Your task to perform on an android device: Open Yahoo.com Image 0: 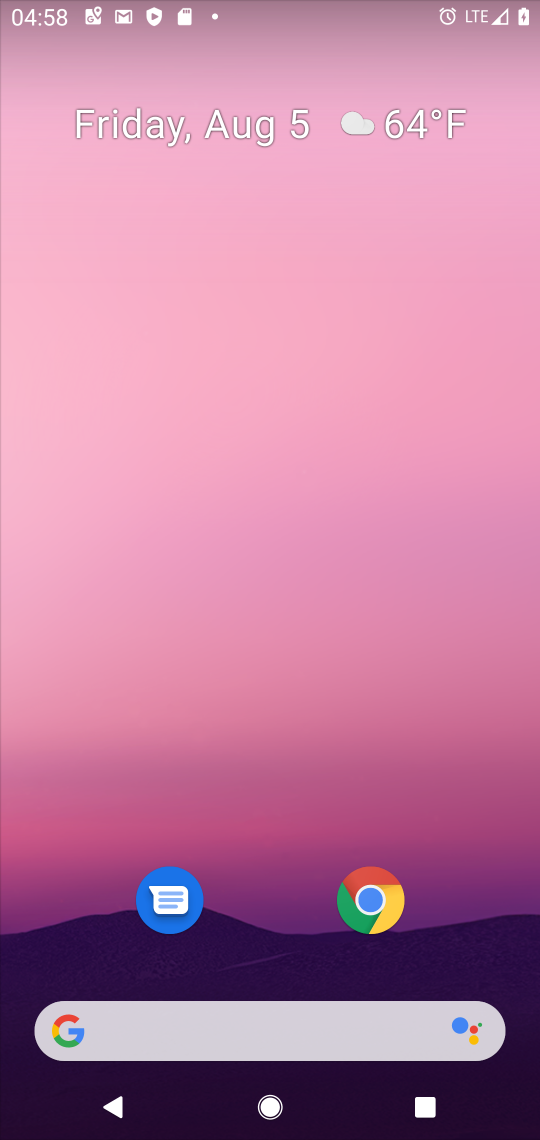
Step 0: click (332, 909)
Your task to perform on an android device: Open Yahoo.com Image 1: 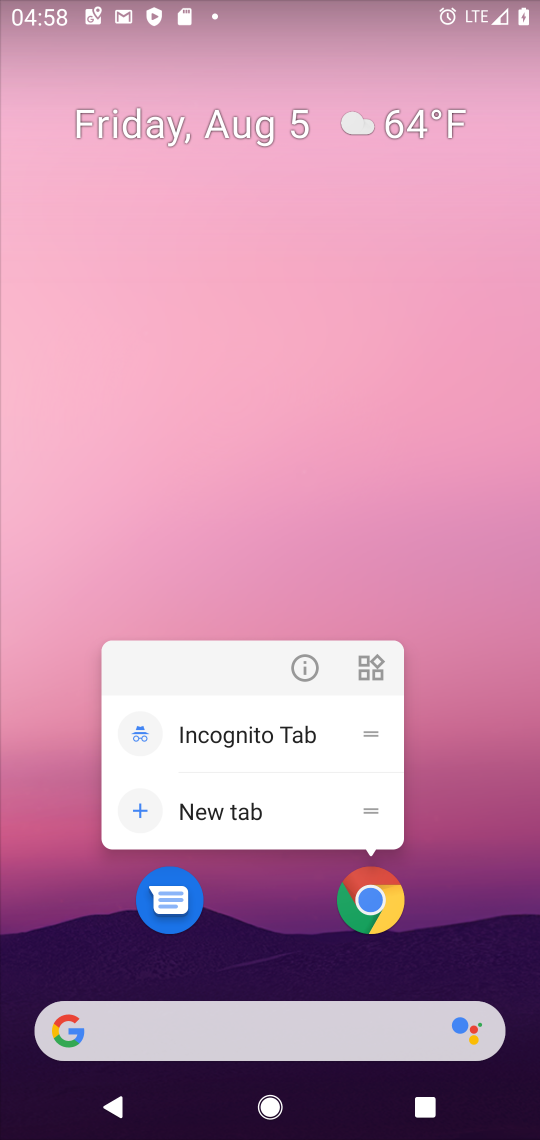
Step 1: click (371, 894)
Your task to perform on an android device: Open Yahoo.com Image 2: 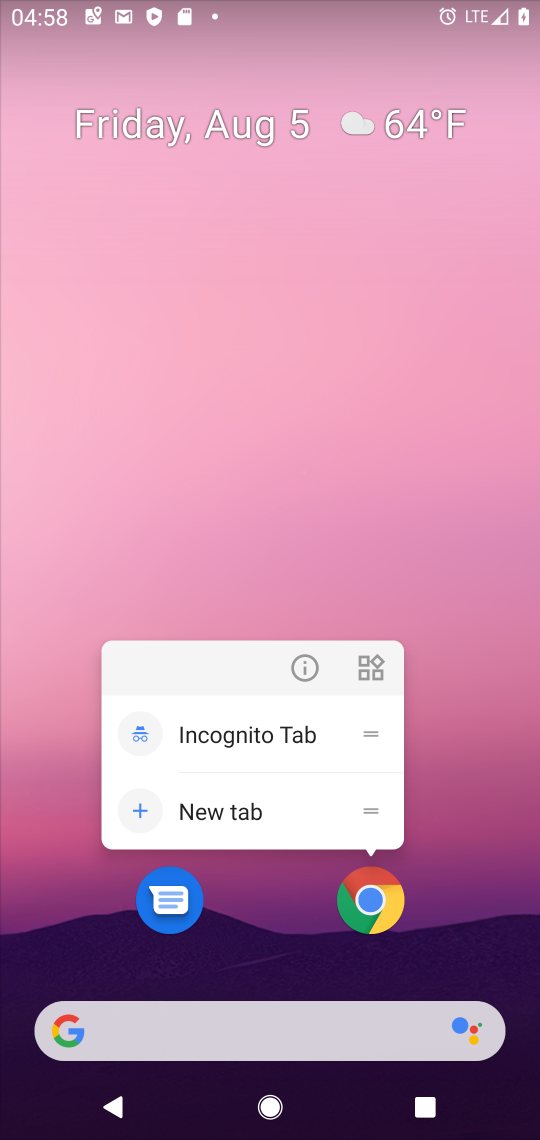
Step 2: click (371, 894)
Your task to perform on an android device: Open Yahoo.com Image 3: 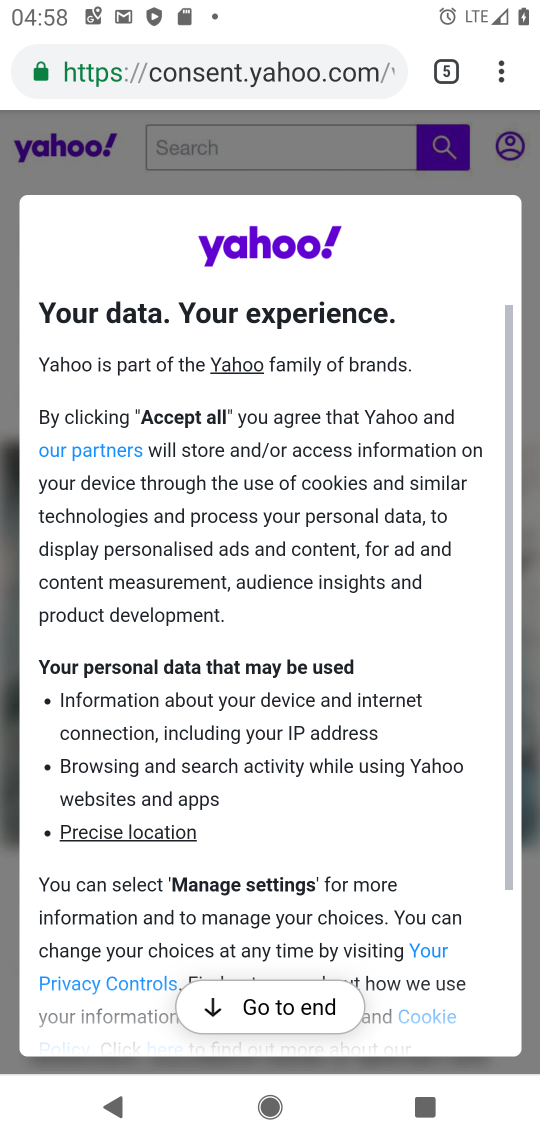
Step 3: task complete